Your task to perform on an android device: Open Yahoo.com Image 0: 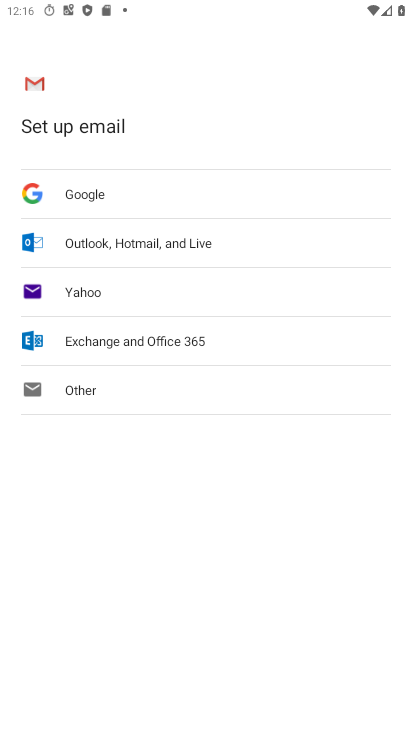
Step 0: press home button
Your task to perform on an android device: Open Yahoo.com Image 1: 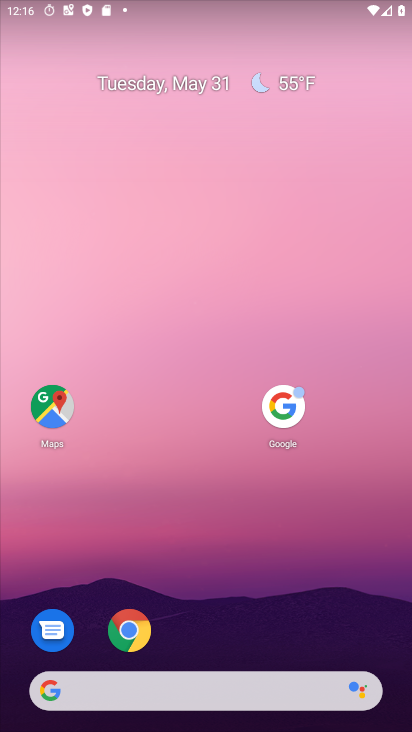
Step 1: click (134, 636)
Your task to perform on an android device: Open Yahoo.com Image 2: 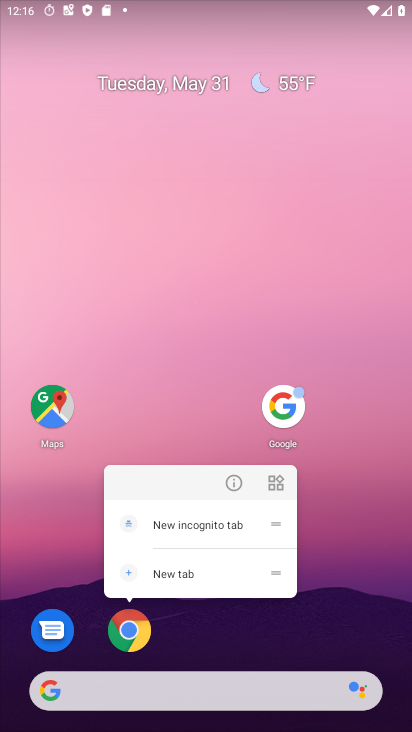
Step 2: click (124, 635)
Your task to perform on an android device: Open Yahoo.com Image 3: 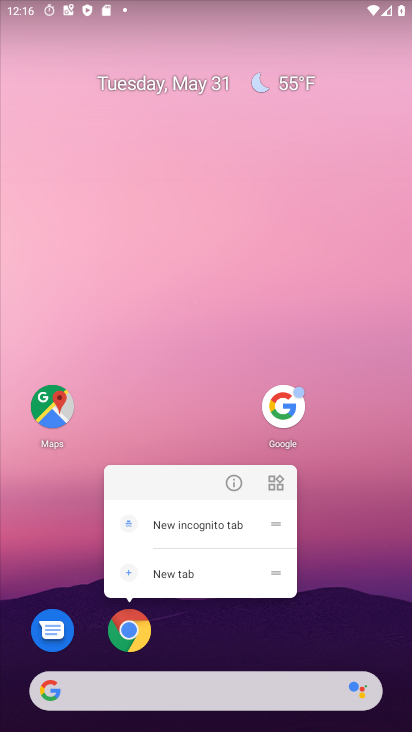
Step 3: click (130, 629)
Your task to perform on an android device: Open Yahoo.com Image 4: 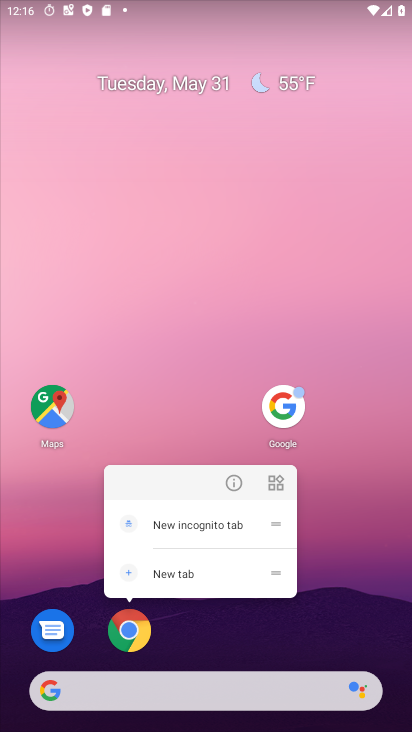
Step 4: click (128, 638)
Your task to perform on an android device: Open Yahoo.com Image 5: 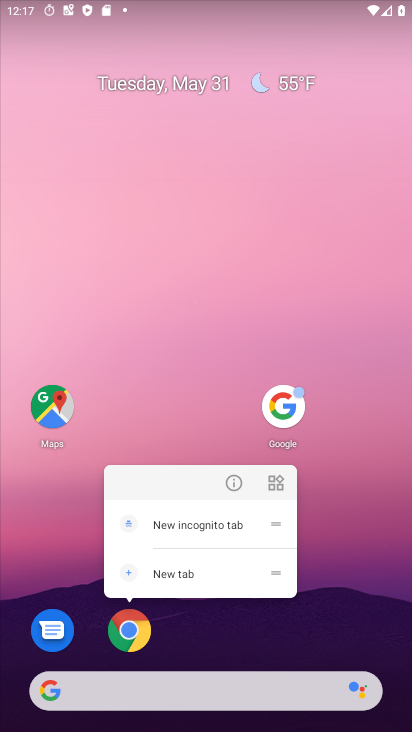
Step 5: click (128, 636)
Your task to perform on an android device: Open Yahoo.com Image 6: 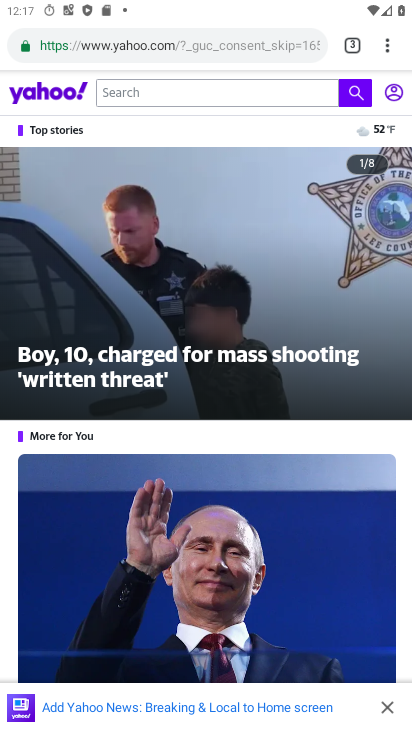
Step 6: task complete